Your task to perform on an android device: turn smart compose on in the gmail app Image 0: 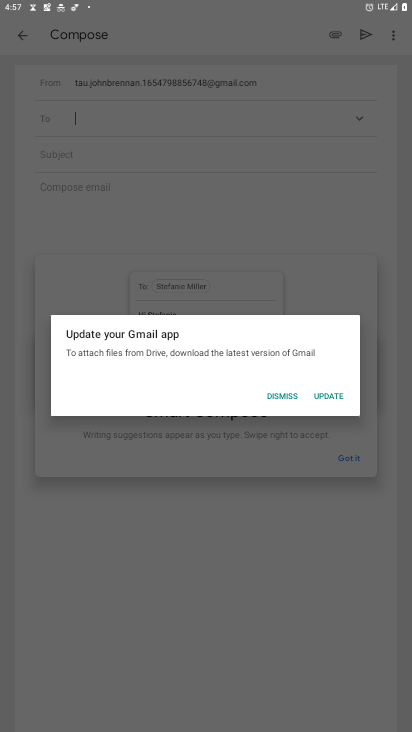
Step 0: press home button
Your task to perform on an android device: turn smart compose on in the gmail app Image 1: 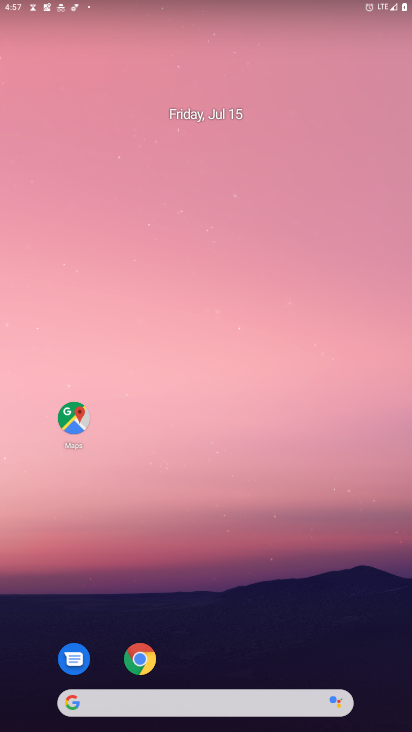
Step 1: drag from (239, 685) to (257, 106)
Your task to perform on an android device: turn smart compose on in the gmail app Image 2: 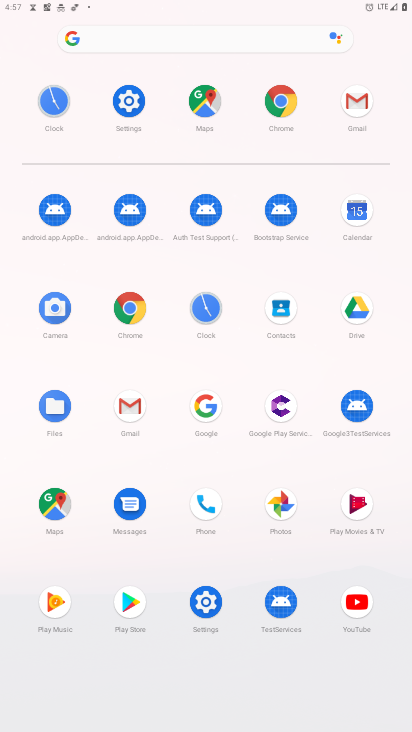
Step 2: click (133, 407)
Your task to perform on an android device: turn smart compose on in the gmail app Image 3: 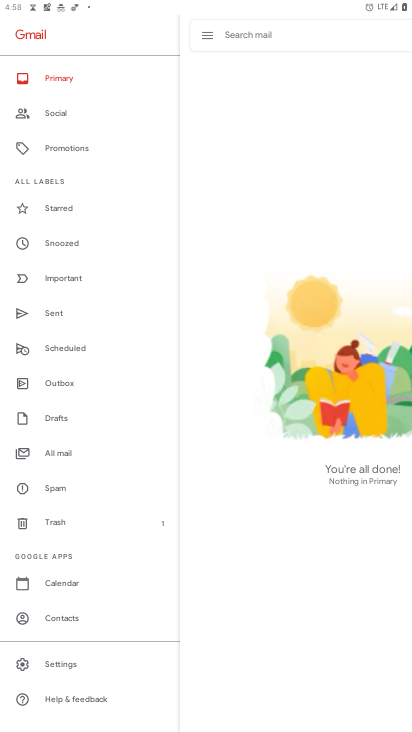
Step 3: click (94, 664)
Your task to perform on an android device: turn smart compose on in the gmail app Image 4: 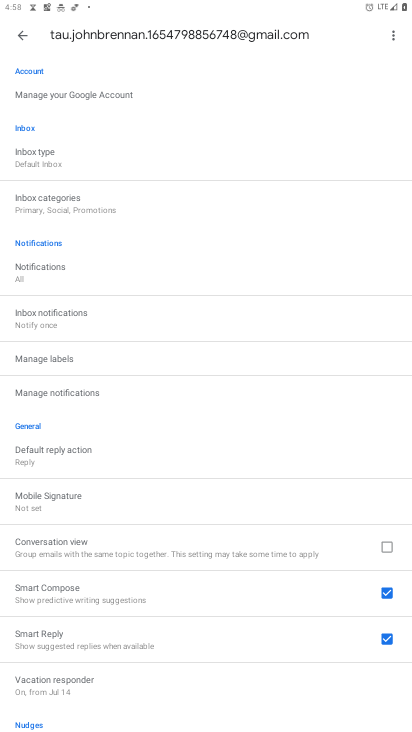
Step 4: task complete